Your task to perform on an android device: Add "panasonic triple a" to the cart on amazon.com Image 0: 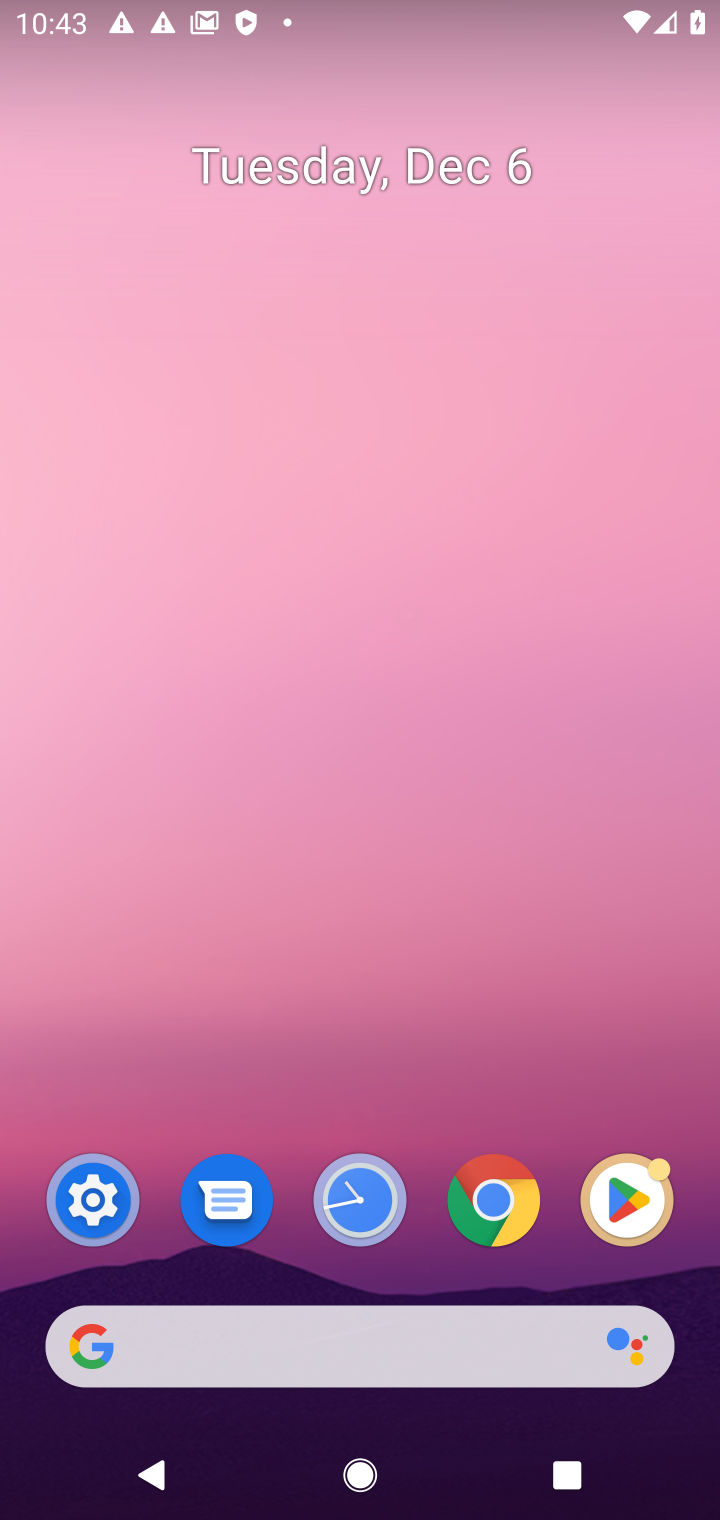
Step 0: press home button
Your task to perform on an android device: Add "panasonic triple a" to the cart on amazon.com Image 1: 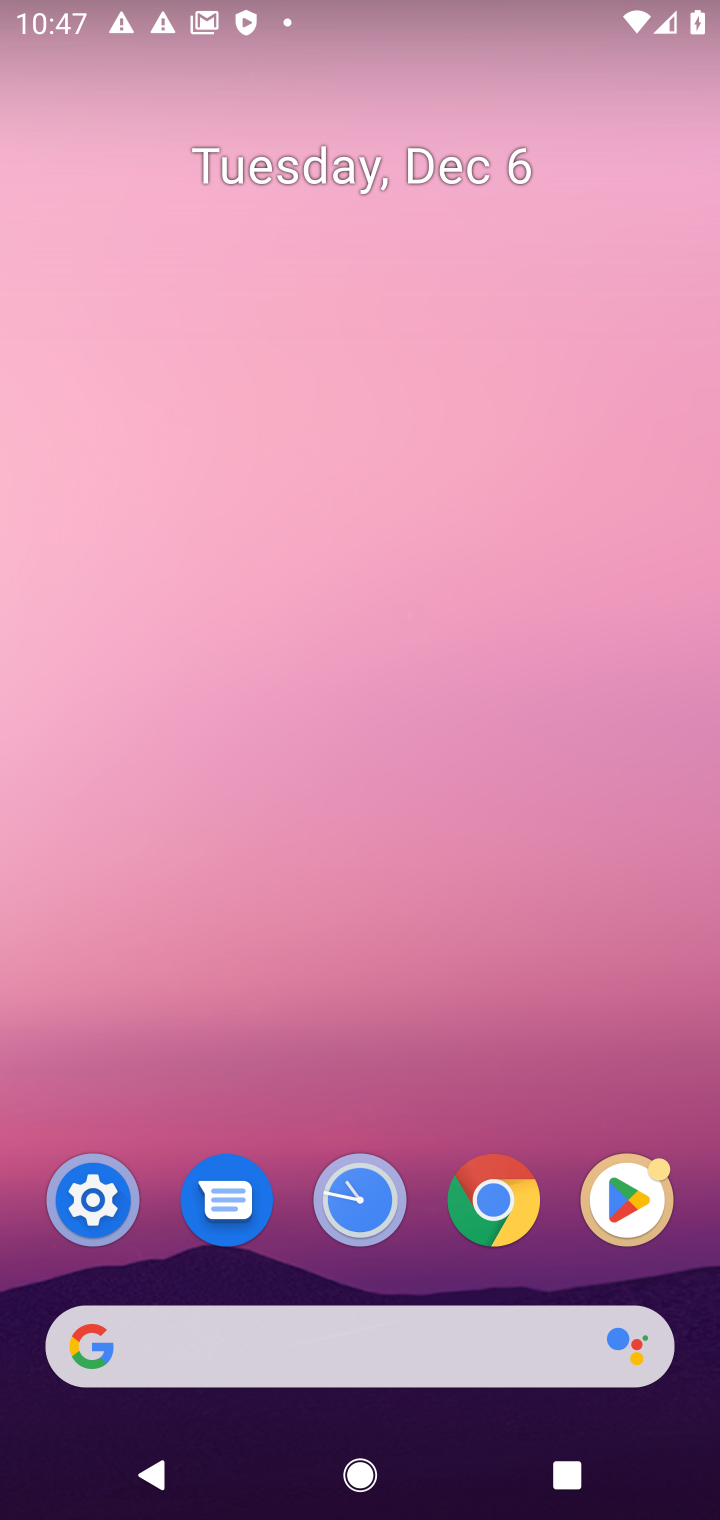
Step 1: click (400, 1359)
Your task to perform on an android device: Add "panasonic triple a" to the cart on amazon.com Image 2: 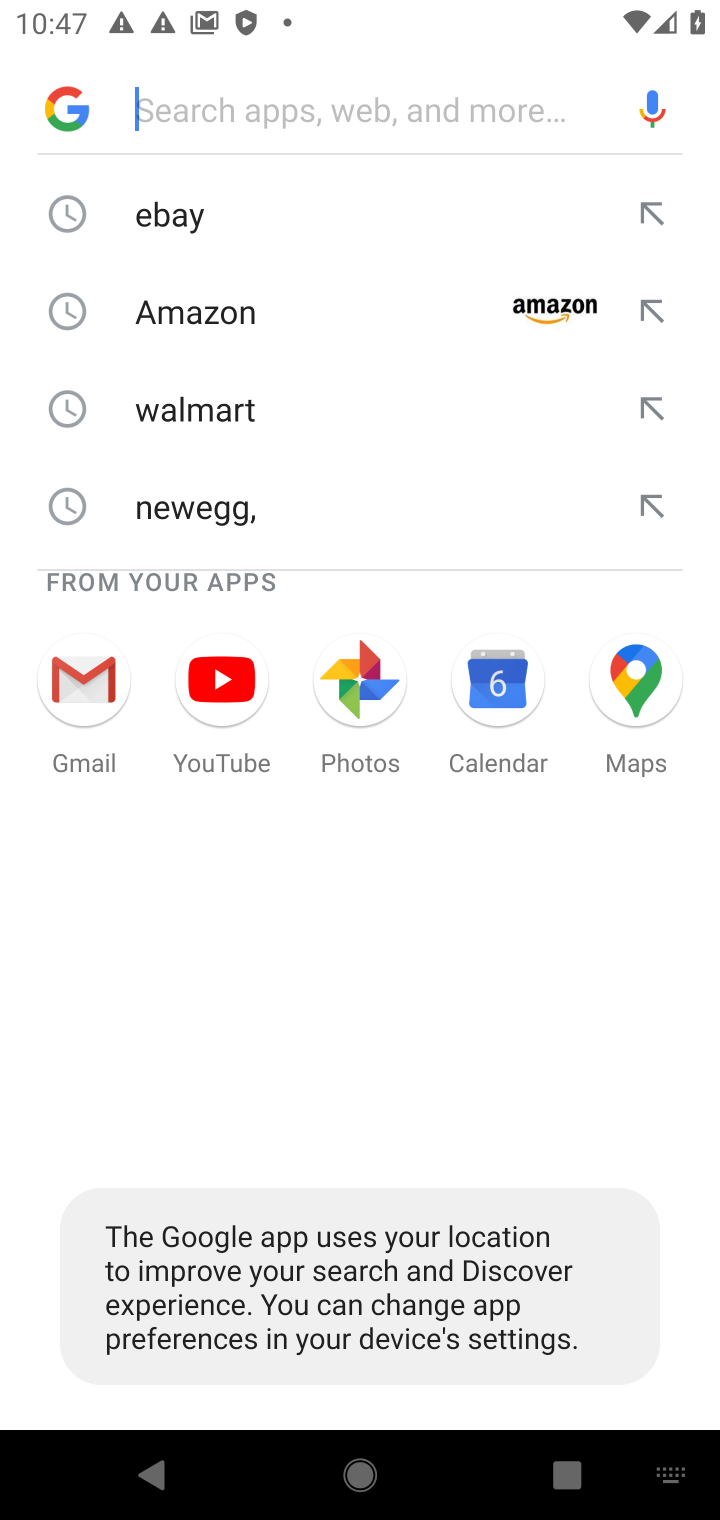
Step 2: type "amazon.com"
Your task to perform on an android device: Add "panasonic triple a" to the cart on amazon.com Image 3: 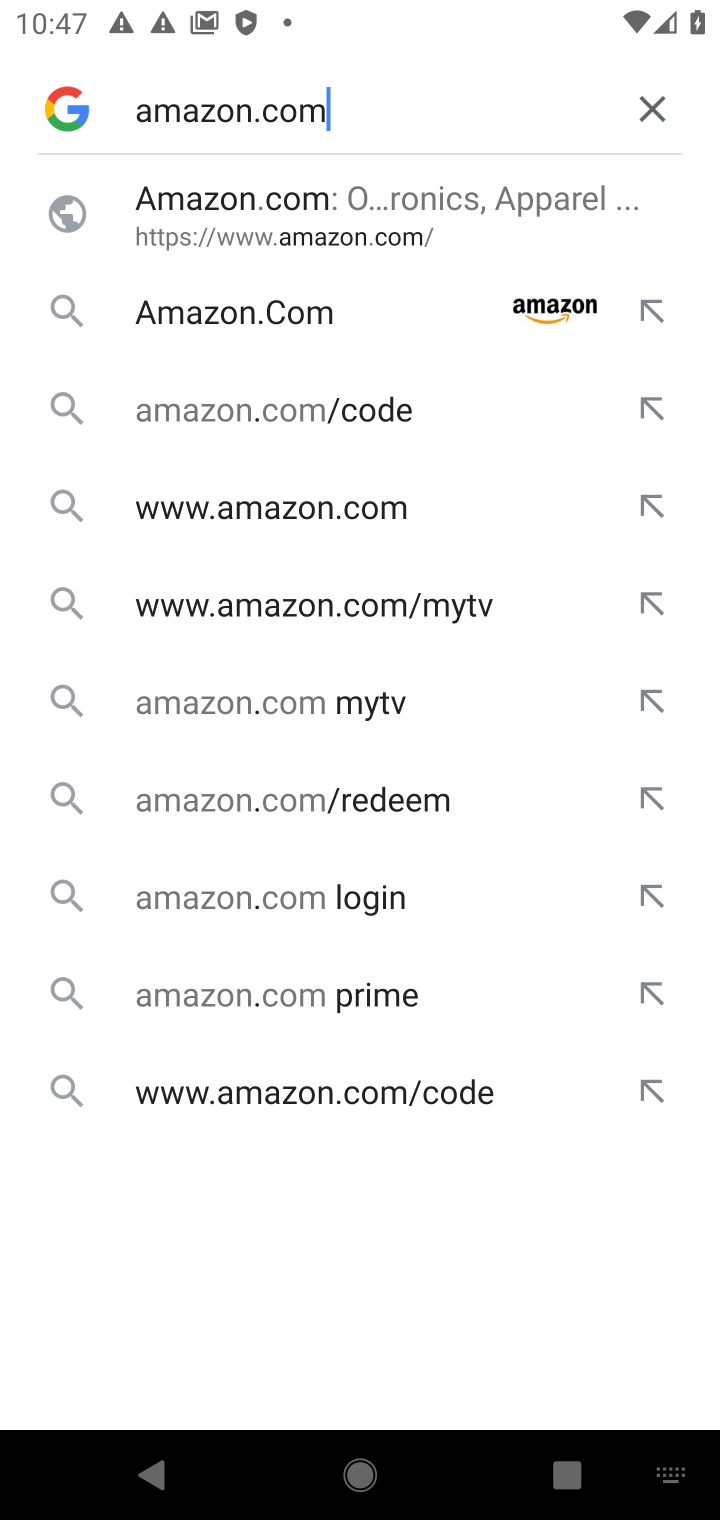
Step 3: click (326, 245)
Your task to perform on an android device: Add "panasonic triple a" to the cart on amazon.com Image 4: 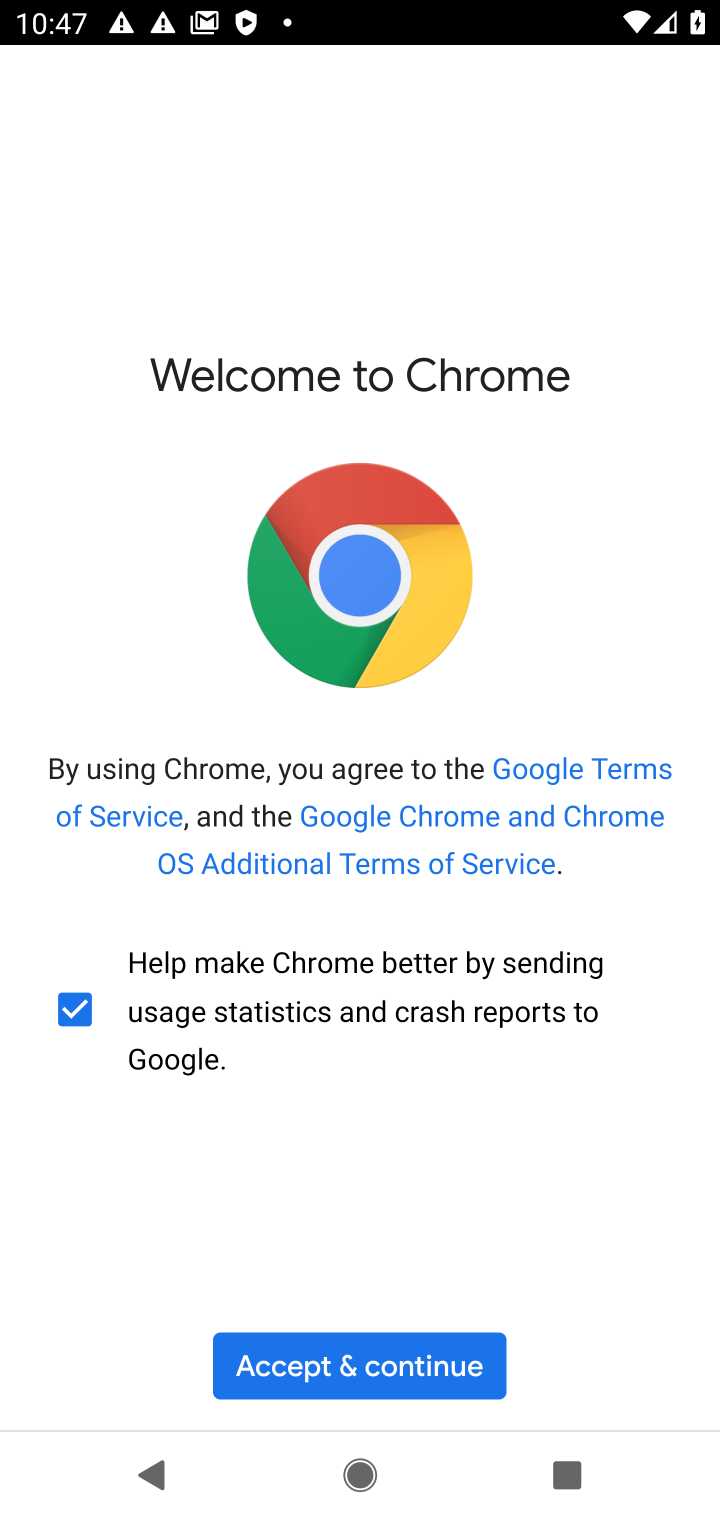
Step 4: task complete